Your task to perform on an android device: toggle improve location accuracy Image 0: 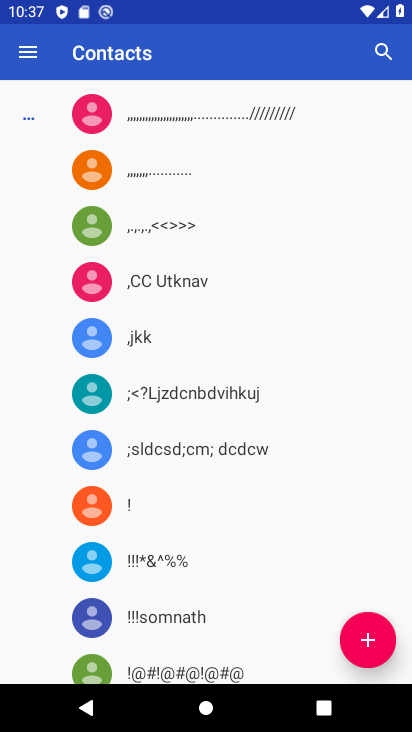
Step 0: press home button
Your task to perform on an android device: toggle improve location accuracy Image 1: 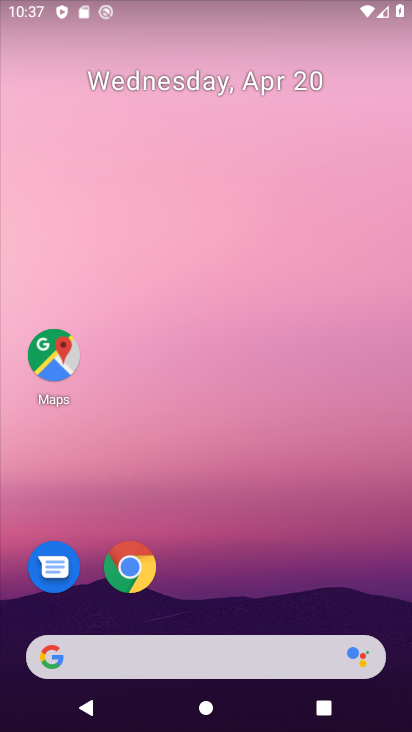
Step 1: drag from (215, 603) to (237, 123)
Your task to perform on an android device: toggle improve location accuracy Image 2: 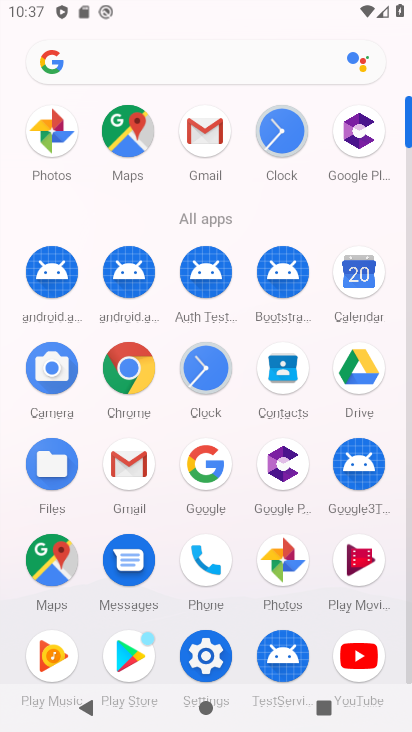
Step 2: click (203, 652)
Your task to perform on an android device: toggle improve location accuracy Image 3: 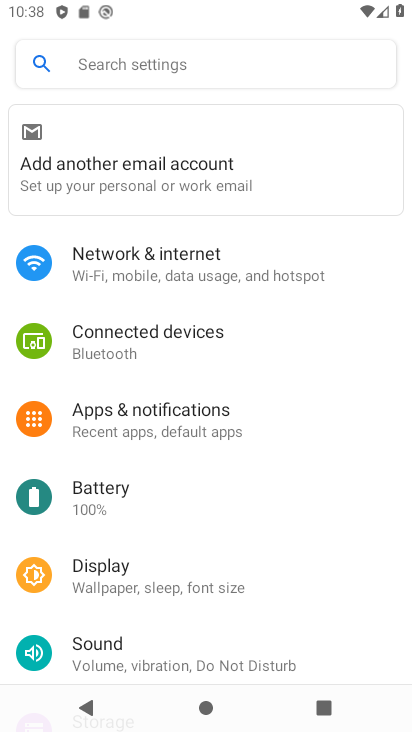
Step 3: drag from (237, 592) to (272, 322)
Your task to perform on an android device: toggle improve location accuracy Image 4: 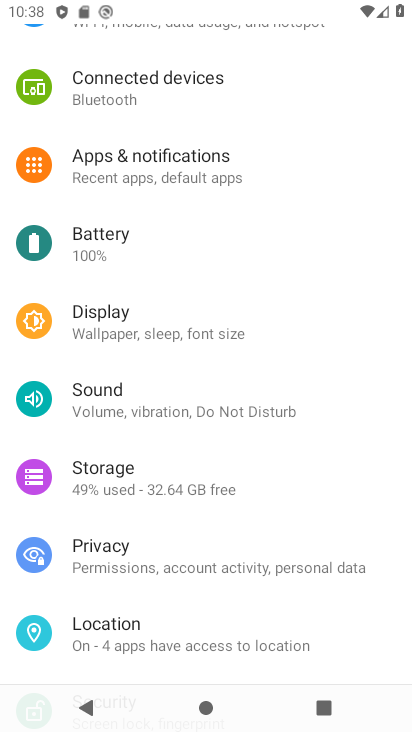
Step 4: click (228, 638)
Your task to perform on an android device: toggle improve location accuracy Image 5: 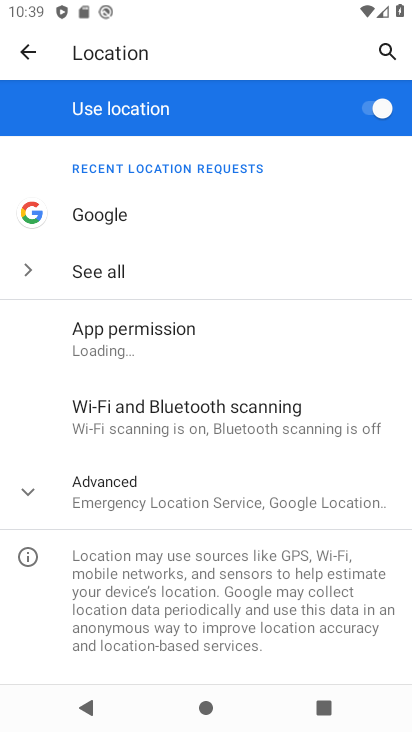
Step 5: click (179, 505)
Your task to perform on an android device: toggle improve location accuracy Image 6: 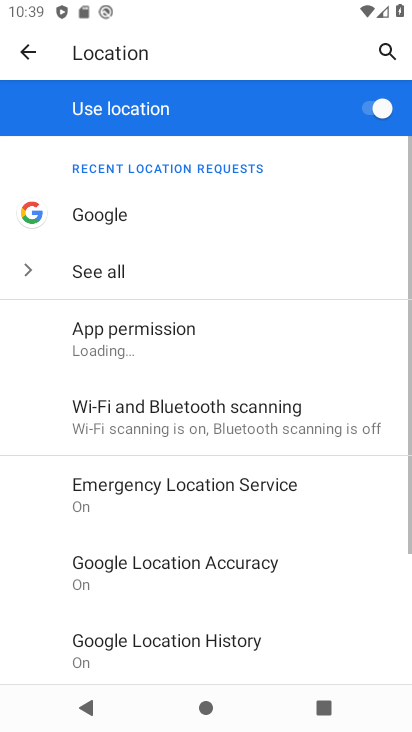
Step 6: drag from (182, 494) to (204, 287)
Your task to perform on an android device: toggle improve location accuracy Image 7: 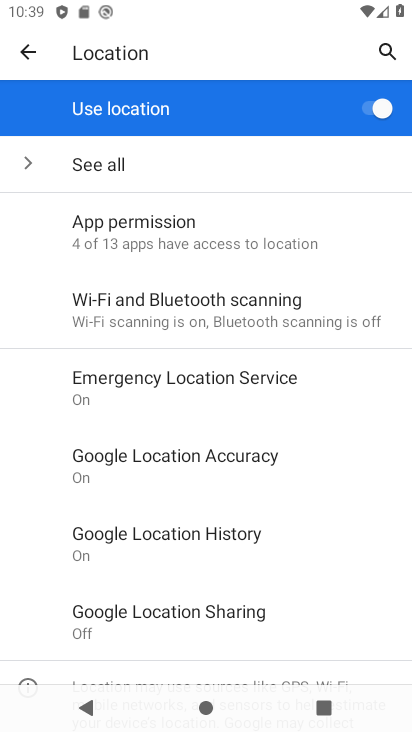
Step 7: click (216, 467)
Your task to perform on an android device: toggle improve location accuracy Image 8: 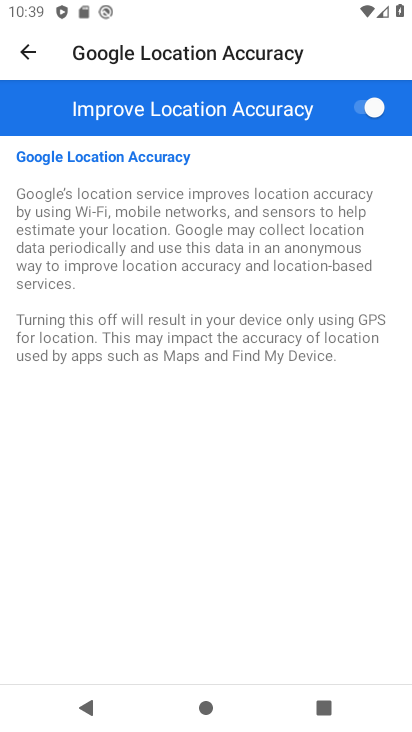
Step 8: click (377, 111)
Your task to perform on an android device: toggle improve location accuracy Image 9: 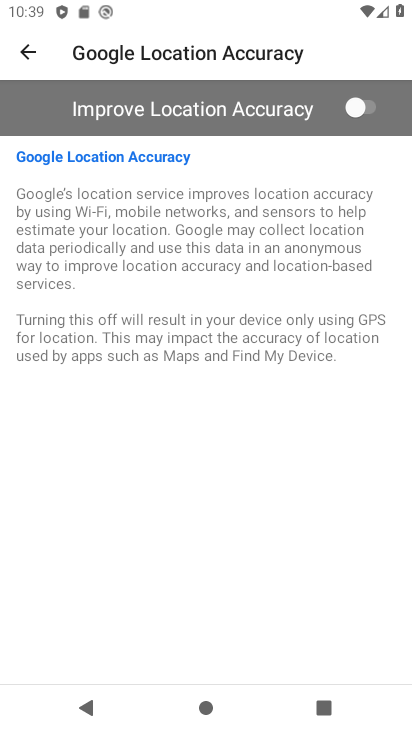
Step 9: task complete